Your task to perform on an android device: Show me the alarms in the clock app Image 0: 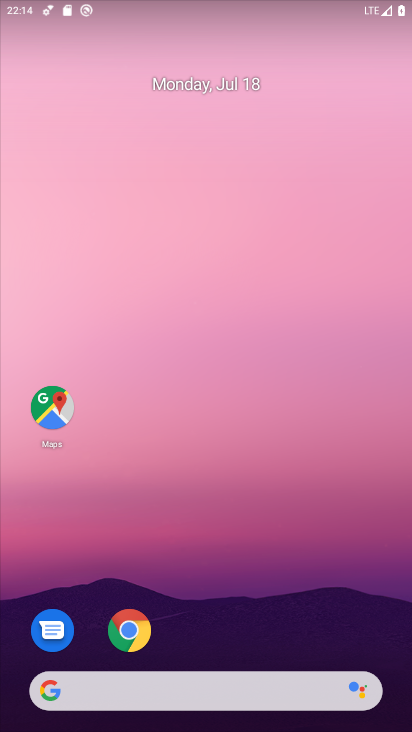
Step 0: drag from (232, 646) to (301, 151)
Your task to perform on an android device: Show me the alarms in the clock app Image 1: 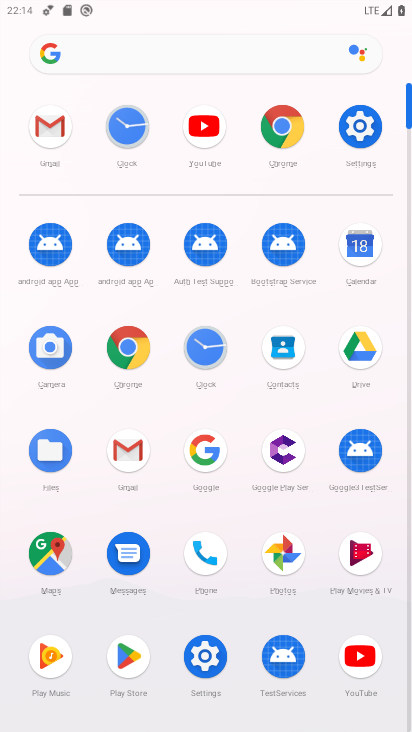
Step 1: click (208, 334)
Your task to perform on an android device: Show me the alarms in the clock app Image 2: 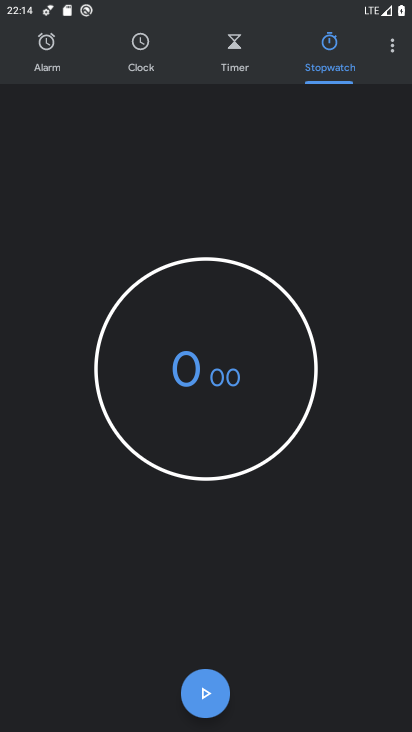
Step 2: click (44, 55)
Your task to perform on an android device: Show me the alarms in the clock app Image 3: 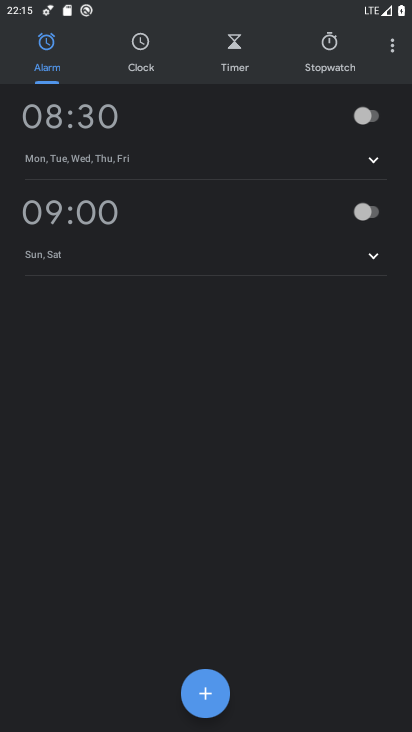
Step 3: task complete